Your task to perform on an android device: Open Maps and search for coffee Image 0: 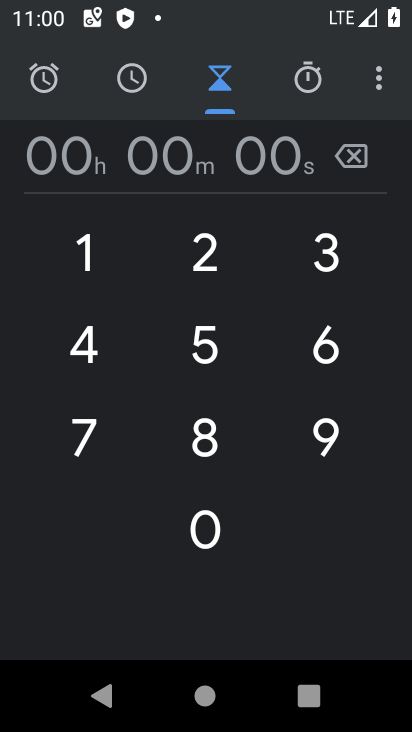
Step 0: press back button
Your task to perform on an android device: Open Maps and search for coffee Image 1: 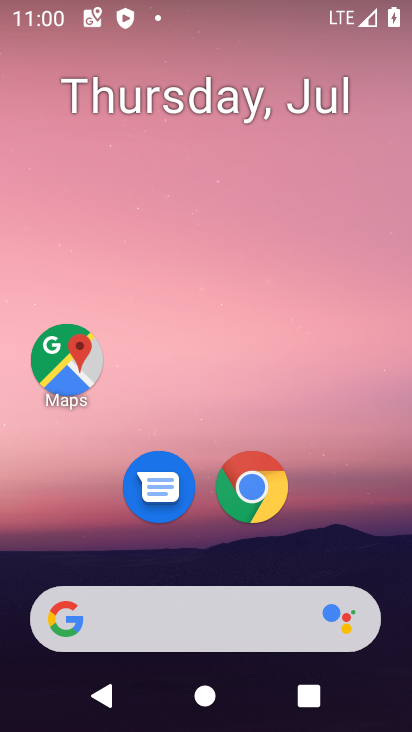
Step 1: click (64, 376)
Your task to perform on an android device: Open Maps and search for coffee Image 2: 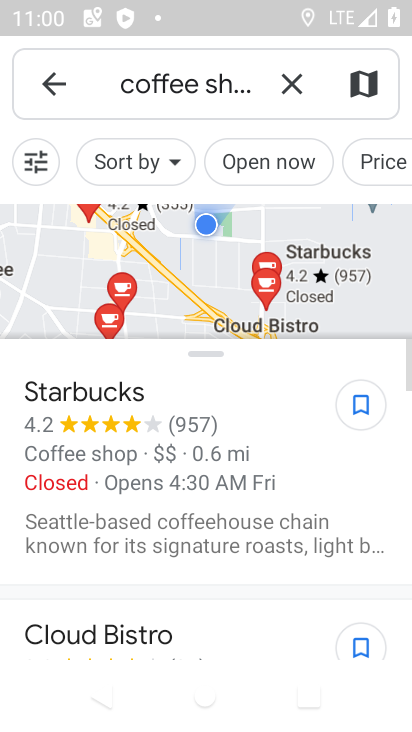
Step 2: task complete